Your task to perform on an android device: turn off translation in the chrome app Image 0: 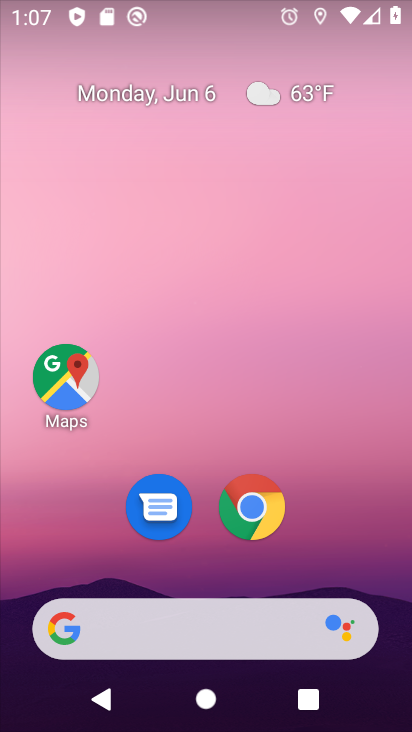
Step 0: click (259, 492)
Your task to perform on an android device: turn off translation in the chrome app Image 1: 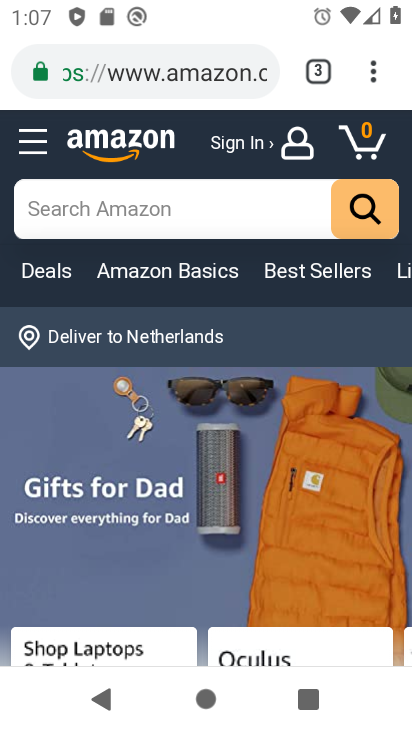
Step 1: click (368, 70)
Your task to perform on an android device: turn off translation in the chrome app Image 2: 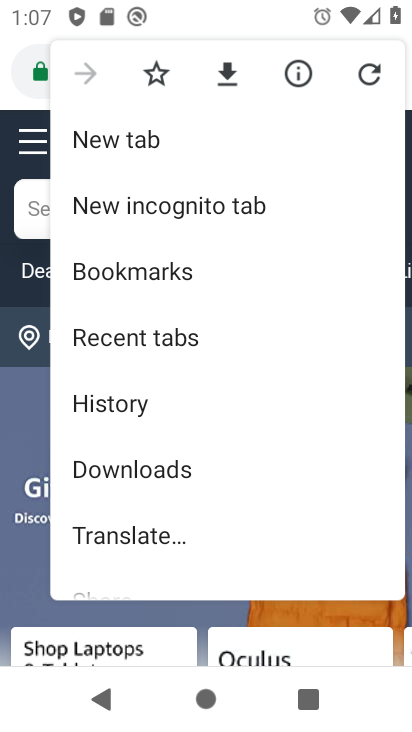
Step 2: drag from (202, 465) to (243, 10)
Your task to perform on an android device: turn off translation in the chrome app Image 3: 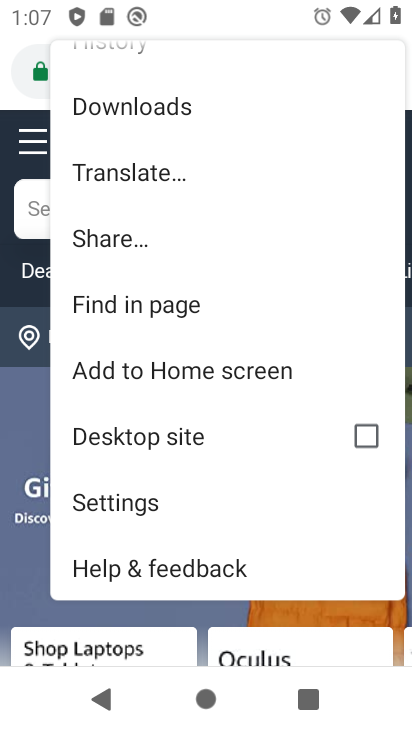
Step 3: click (136, 486)
Your task to perform on an android device: turn off translation in the chrome app Image 4: 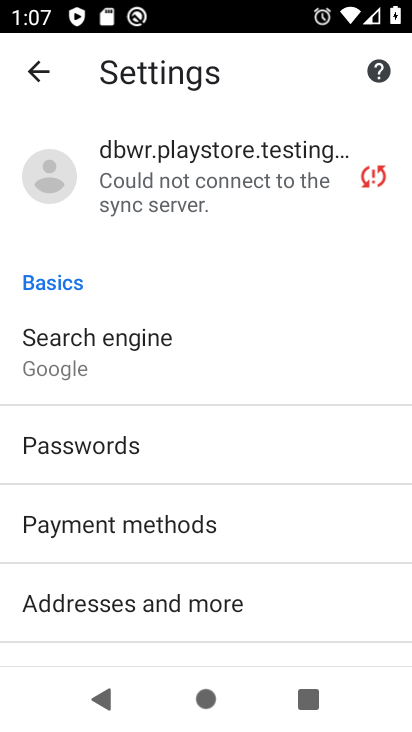
Step 4: click (36, 66)
Your task to perform on an android device: turn off translation in the chrome app Image 5: 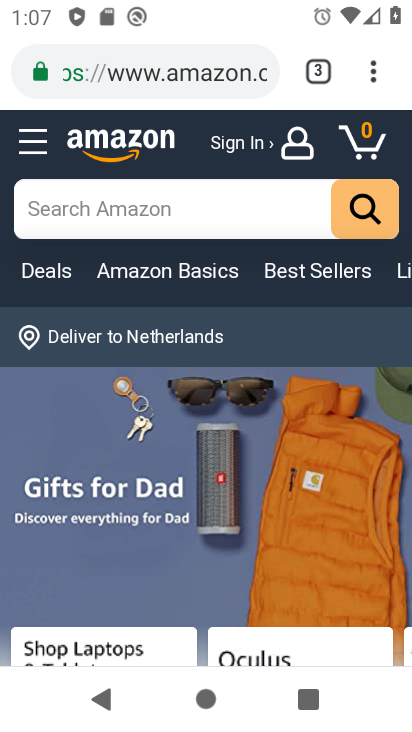
Step 5: click (370, 60)
Your task to perform on an android device: turn off translation in the chrome app Image 6: 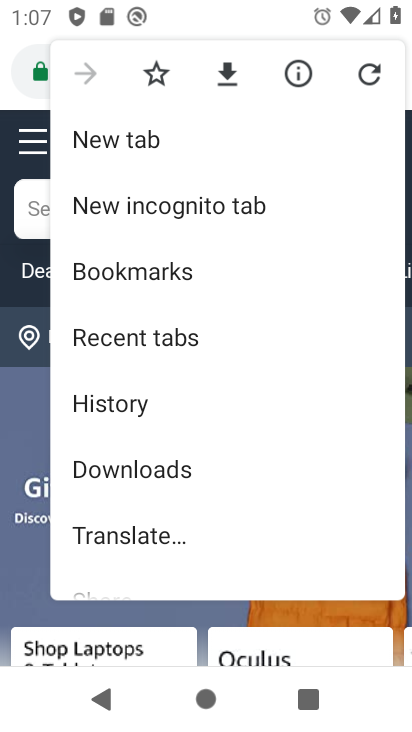
Step 6: drag from (228, 547) to (229, 102)
Your task to perform on an android device: turn off translation in the chrome app Image 7: 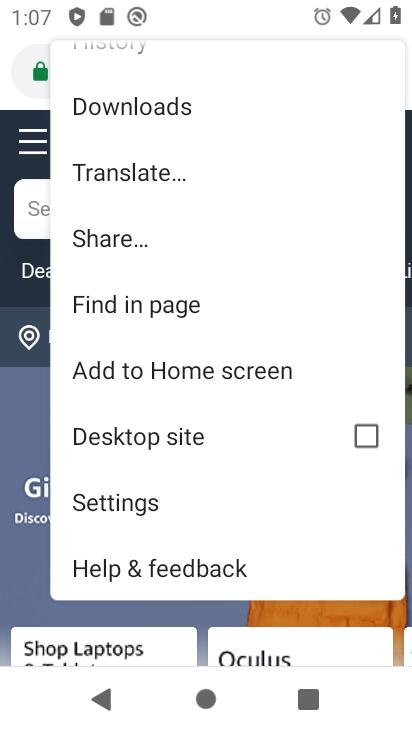
Step 7: click (171, 499)
Your task to perform on an android device: turn off translation in the chrome app Image 8: 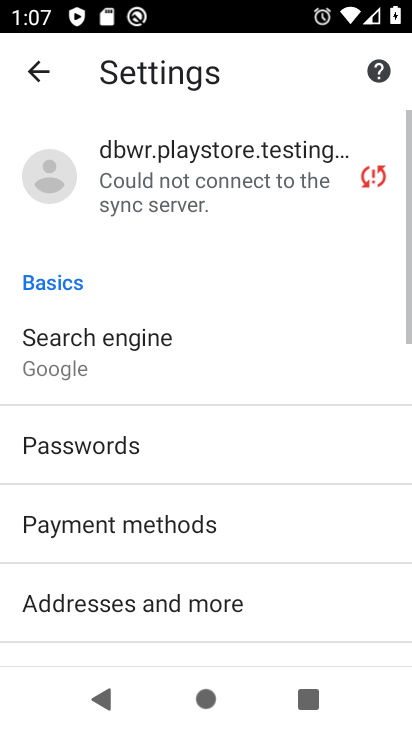
Step 8: drag from (184, 580) to (195, 81)
Your task to perform on an android device: turn off translation in the chrome app Image 9: 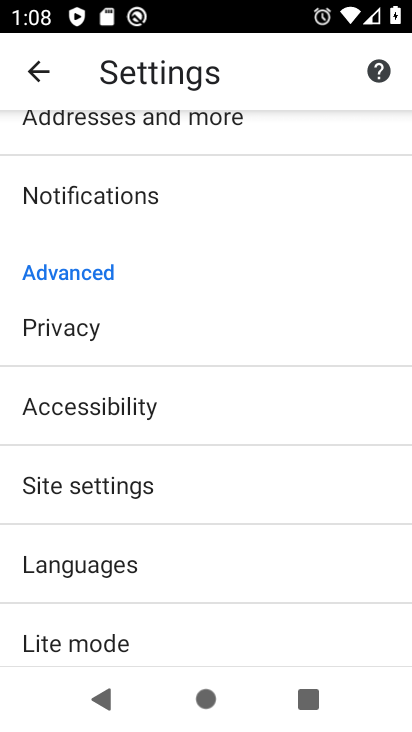
Step 9: click (209, 567)
Your task to perform on an android device: turn off translation in the chrome app Image 10: 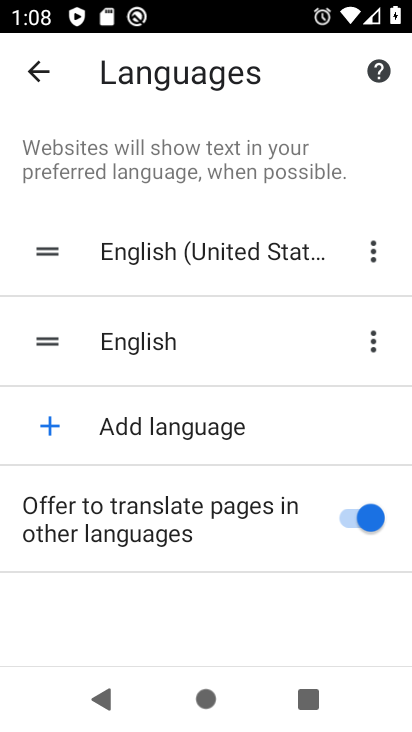
Step 10: click (365, 516)
Your task to perform on an android device: turn off translation in the chrome app Image 11: 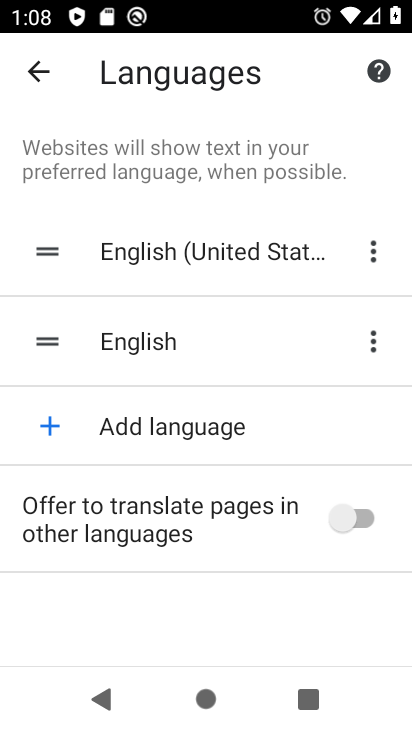
Step 11: task complete